Your task to perform on an android device: Open the phone app and click the voicemail tab. Image 0: 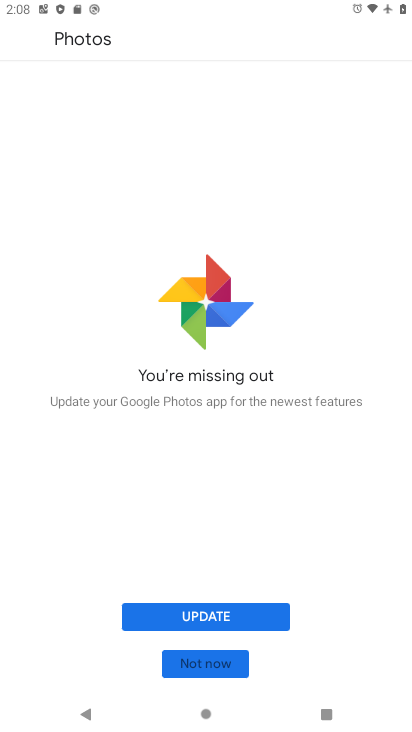
Step 0: press home button
Your task to perform on an android device: Open the phone app and click the voicemail tab. Image 1: 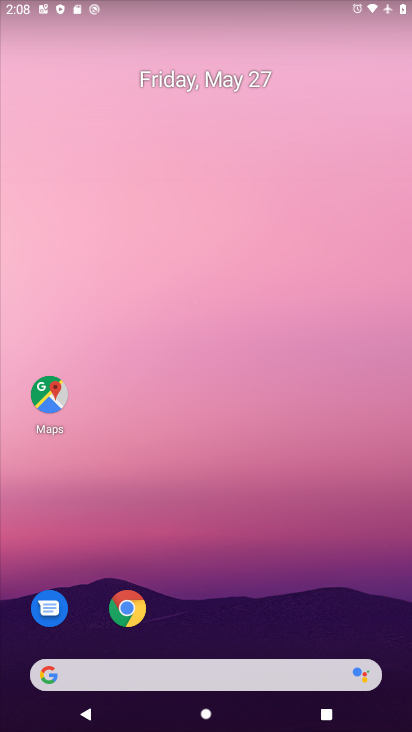
Step 1: drag from (116, 682) to (257, 92)
Your task to perform on an android device: Open the phone app and click the voicemail tab. Image 2: 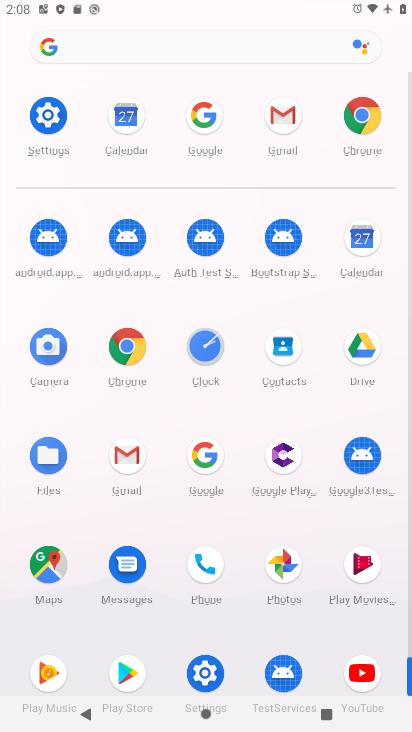
Step 2: click (203, 572)
Your task to perform on an android device: Open the phone app and click the voicemail tab. Image 3: 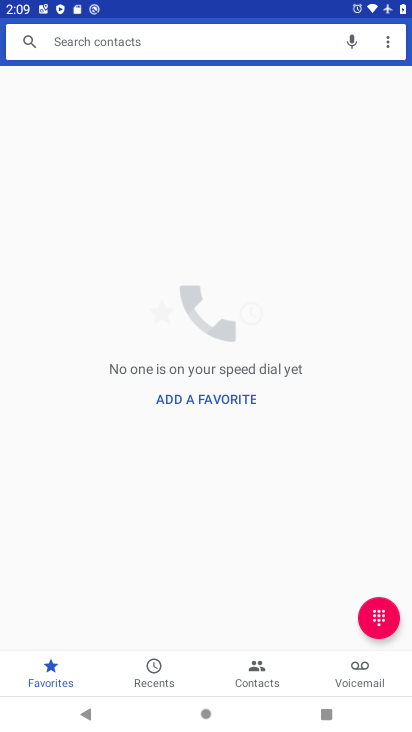
Step 3: click (356, 670)
Your task to perform on an android device: Open the phone app and click the voicemail tab. Image 4: 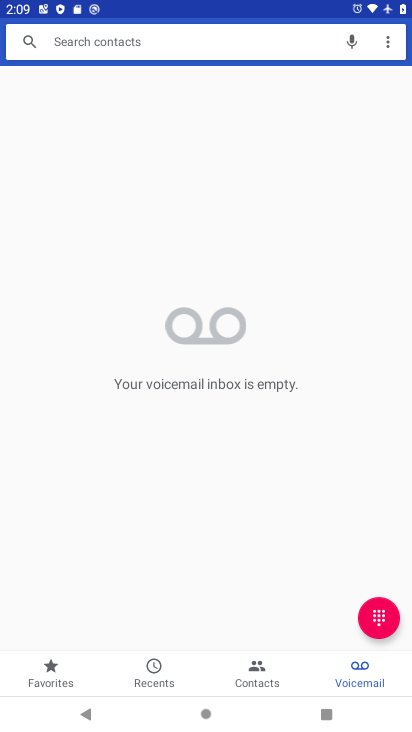
Step 4: task complete